Your task to perform on an android device: Open my contact list Image 0: 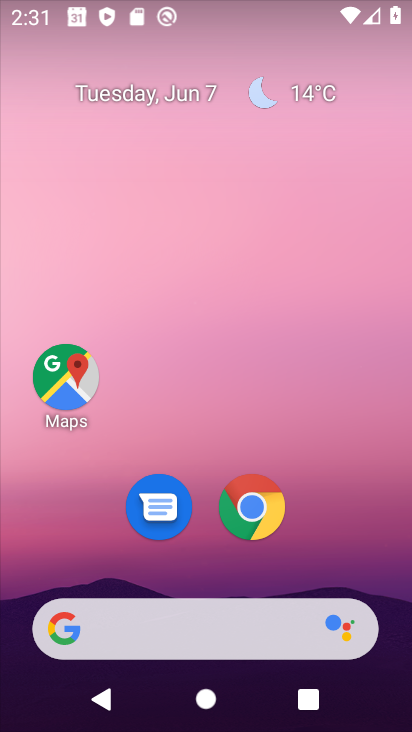
Step 0: drag from (332, 495) to (283, 43)
Your task to perform on an android device: Open my contact list Image 1: 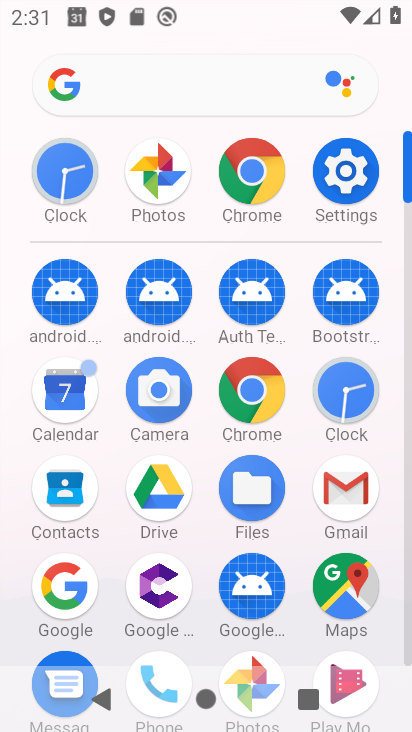
Step 1: click (69, 493)
Your task to perform on an android device: Open my contact list Image 2: 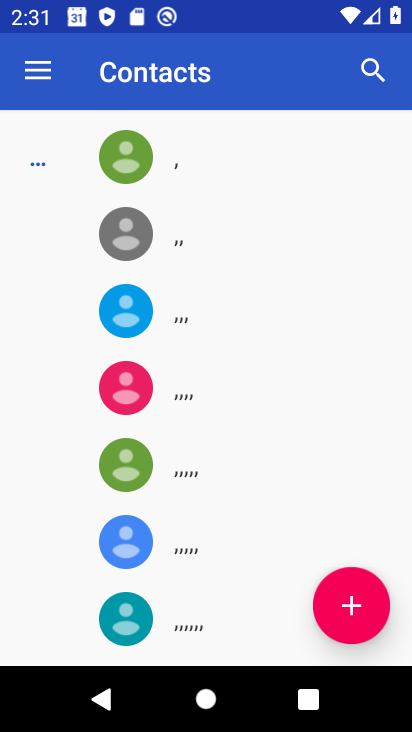
Step 2: task complete